Your task to perform on an android device: Go to sound settings Image 0: 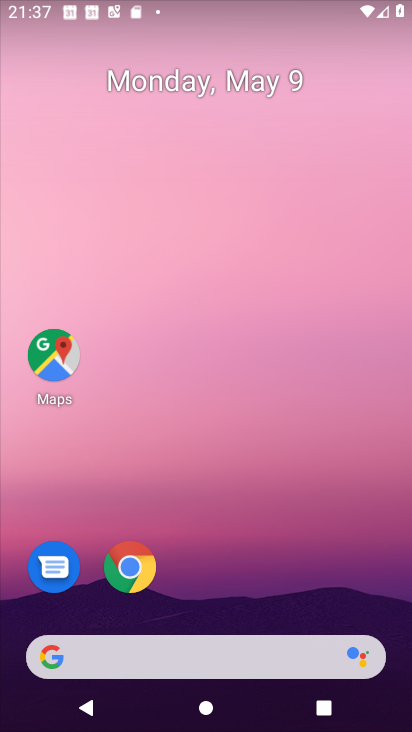
Step 0: drag from (209, 597) to (297, 206)
Your task to perform on an android device: Go to sound settings Image 1: 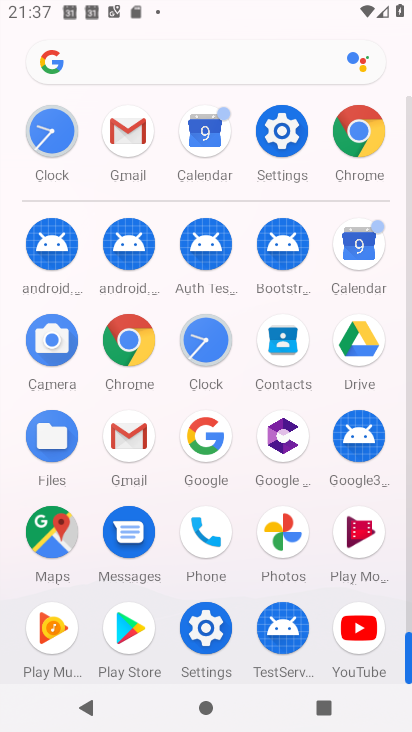
Step 1: click (280, 130)
Your task to perform on an android device: Go to sound settings Image 2: 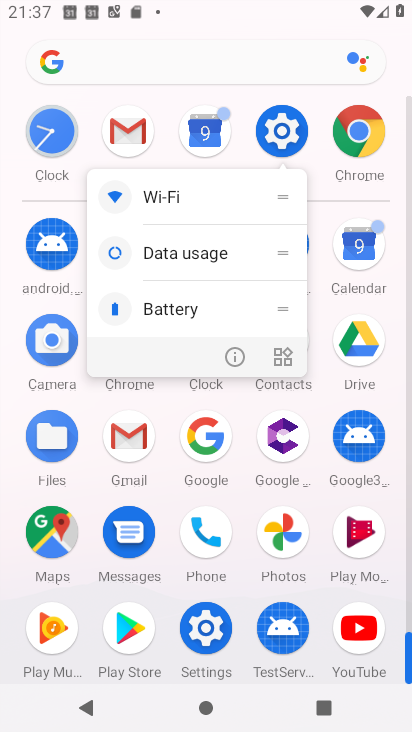
Step 2: click (227, 349)
Your task to perform on an android device: Go to sound settings Image 3: 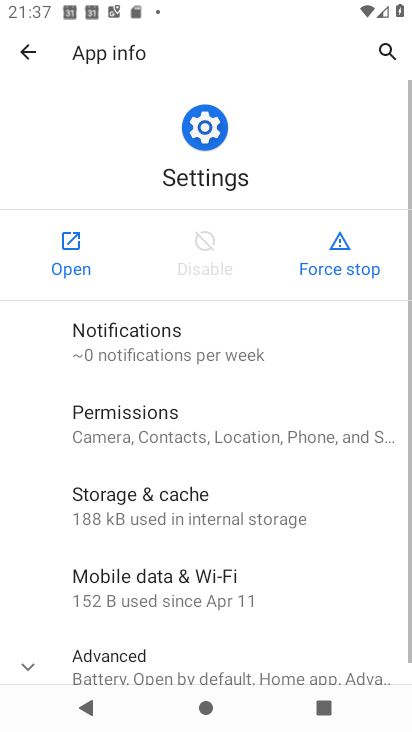
Step 3: click (73, 260)
Your task to perform on an android device: Go to sound settings Image 4: 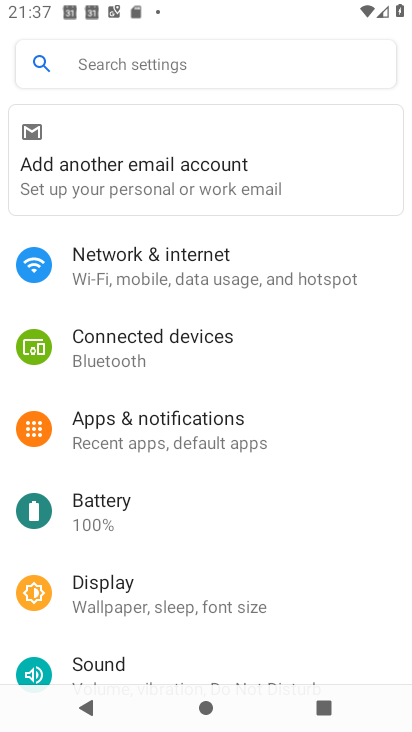
Step 4: drag from (120, 620) to (205, 244)
Your task to perform on an android device: Go to sound settings Image 5: 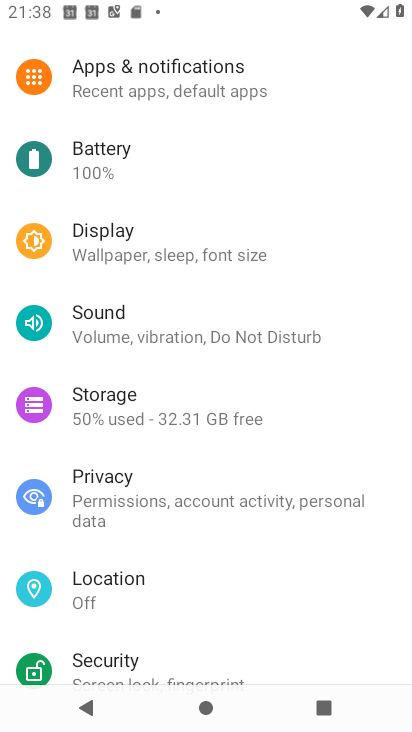
Step 5: click (142, 314)
Your task to perform on an android device: Go to sound settings Image 6: 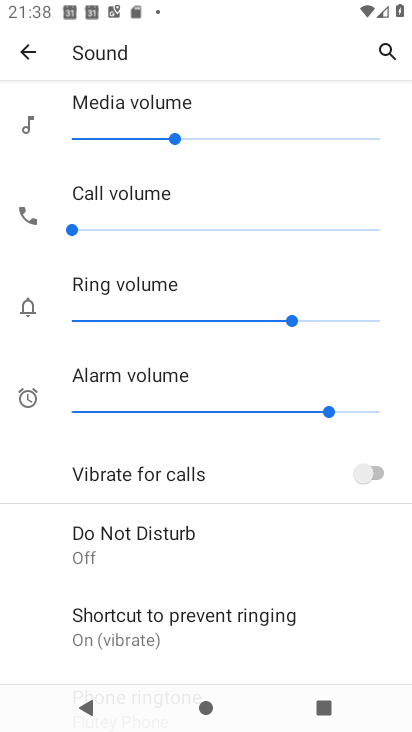
Step 6: task complete